Your task to perform on an android device: toggle translation in the chrome app Image 0: 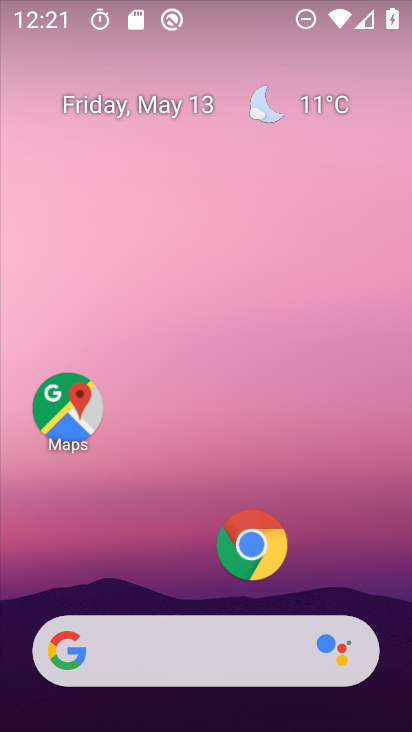
Step 0: click (253, 540)
Your task to perform on an android device: toggle translation in the chrome app Image 1: 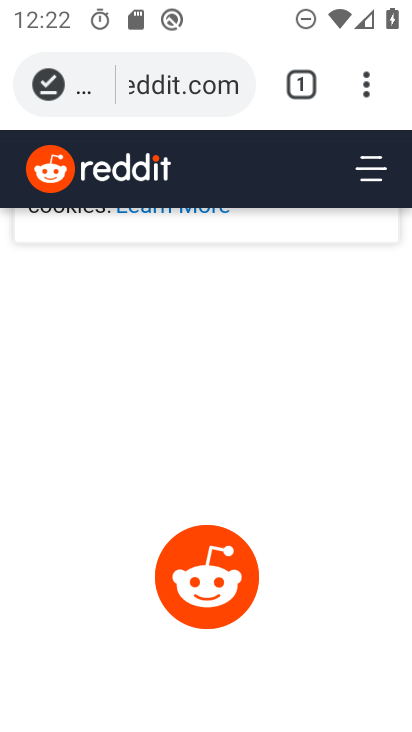
Step 1: click (369, 80)
Your task to perform on an android device: toggle translation in the chrome app Image 2: 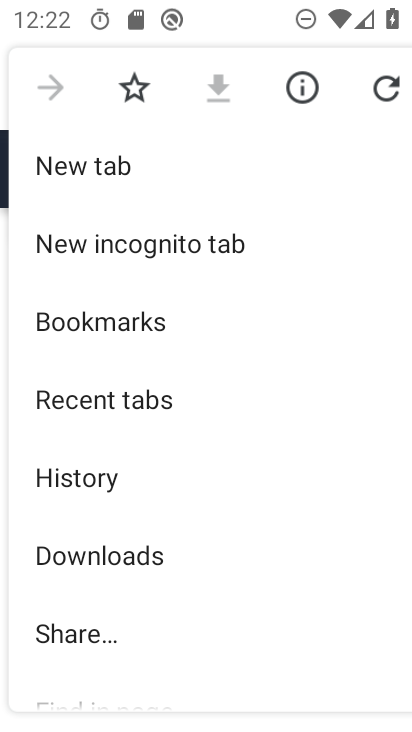
Step 2: drag from (218, 631) to (229, 165)
Your task to perform on an android device: toggle translation in the chrome app Image 3: 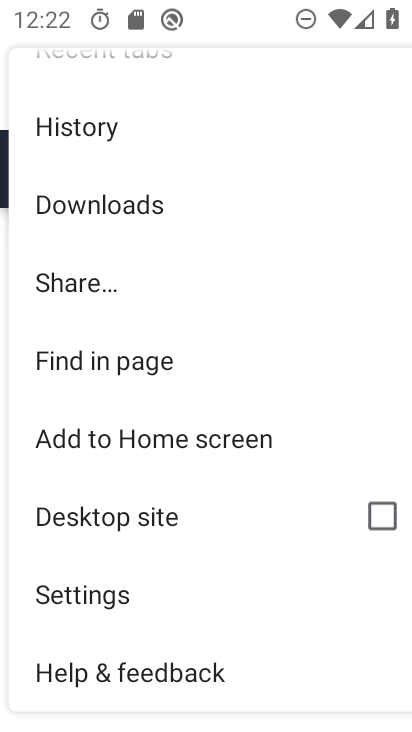
Step 3: click (150, 590)
Your task to perform on an android device: toggle translation in the chrome app Image 4: 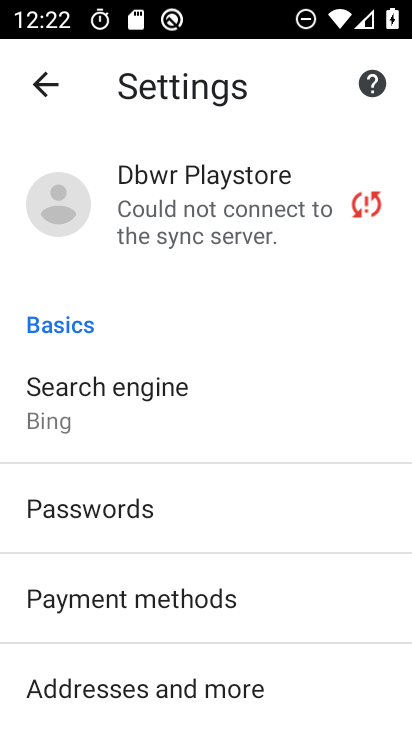
Step 4: drag from (254, 659) to (288, 169)
Your task to perform on an android device: toggle translation in the chrome app Image 5: 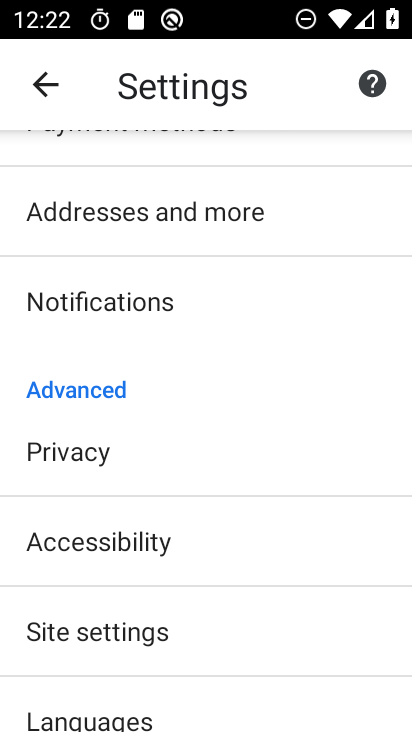
Step 5: click (183, 708)
Your task to perform on an android device: toggle translation in the chrome app Image 6: 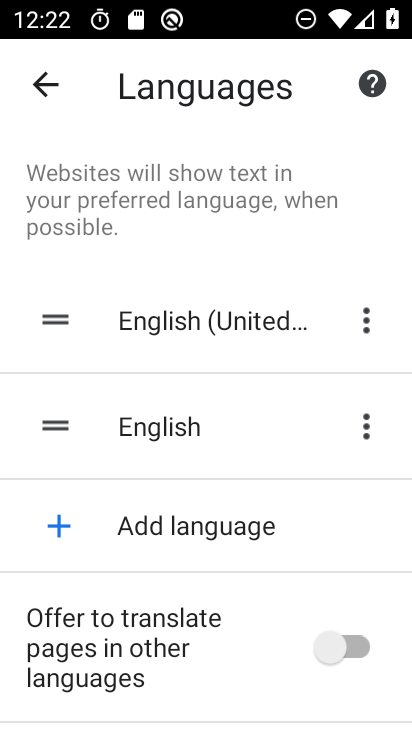
Step 6: click (349, 648)
Your task to perform on an android device: toggle translation in the chrome app Image 7: 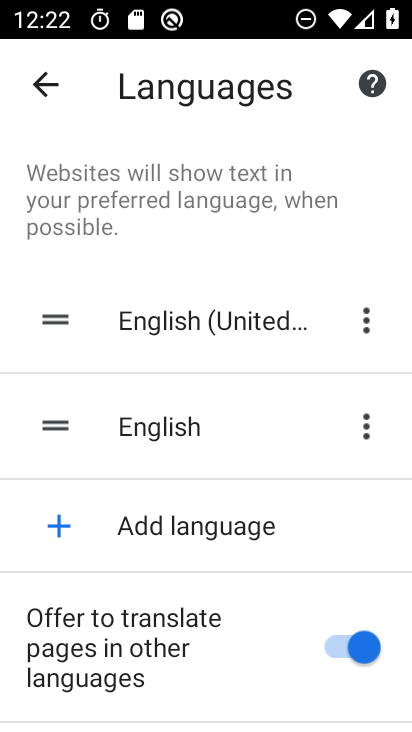
Step 7: task complete